Your task to perform on an android device: add a contact Image 0: 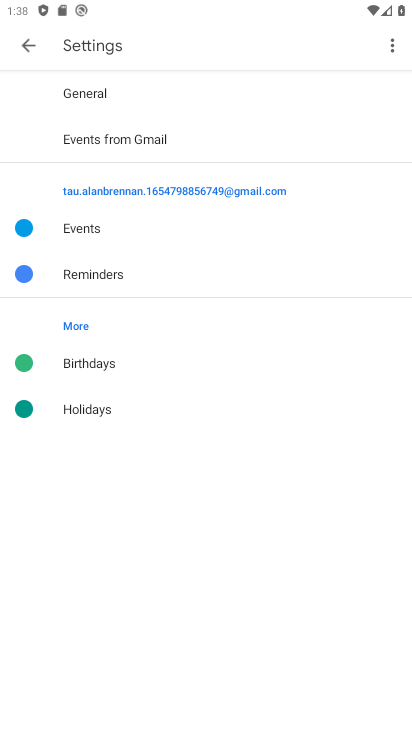
Step 0: press back button
Your task to perform on an android device: add a contact Image 1: 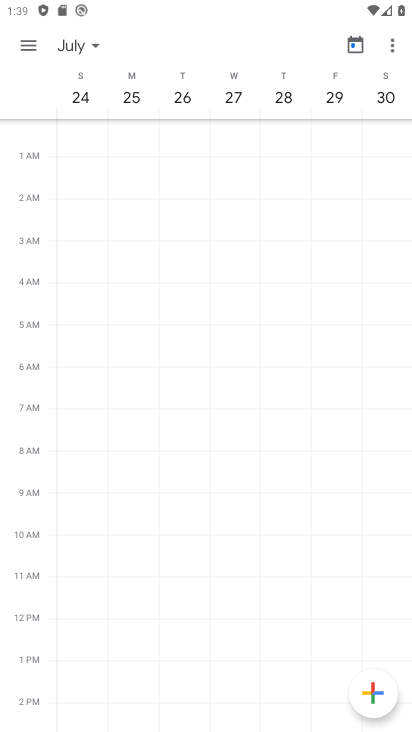
Step 1: press home button
Your task to perform on an android device: add a contact Image 2: 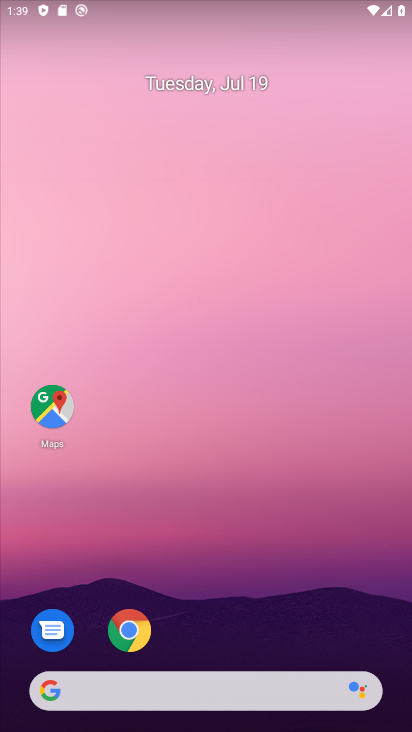
Step 2: drag from (234, 650) to (272, 39)
Your task to perform on an android device: add a contact Image 3: 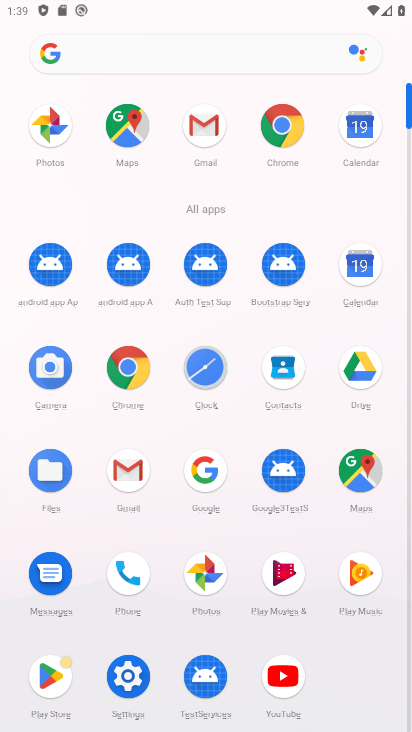
Step 3: click (281, 361)
Your task to perform on an android device: add a contact Image 4: 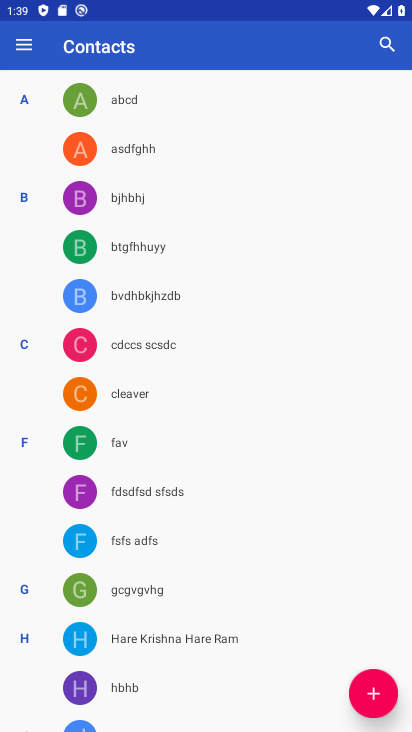
Step 4: click (373, 691)
Your task to perform on an android device: add a contact Image 5: 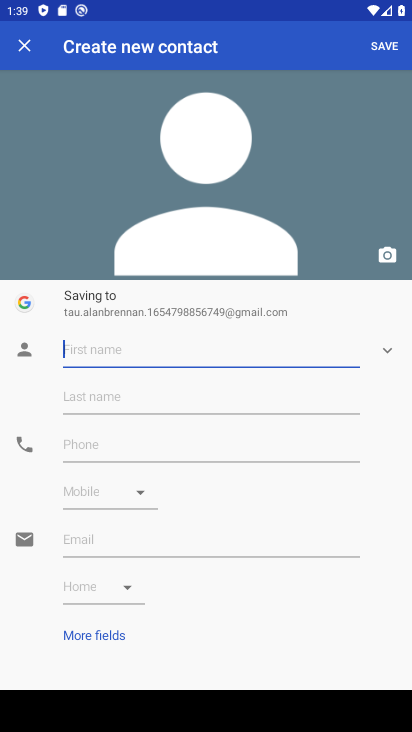
Step 5: type "aprnkt"
Your task to perform on an android device: add a contact Image 6: 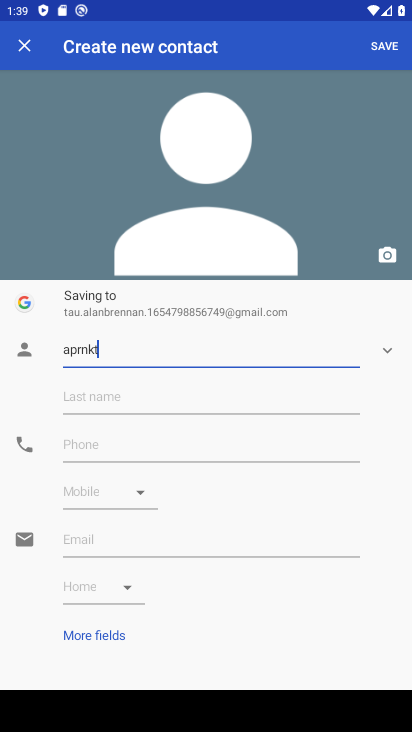
Step 6: click (383, 40)
Your task to perform on an android device: add a contact Image 7: 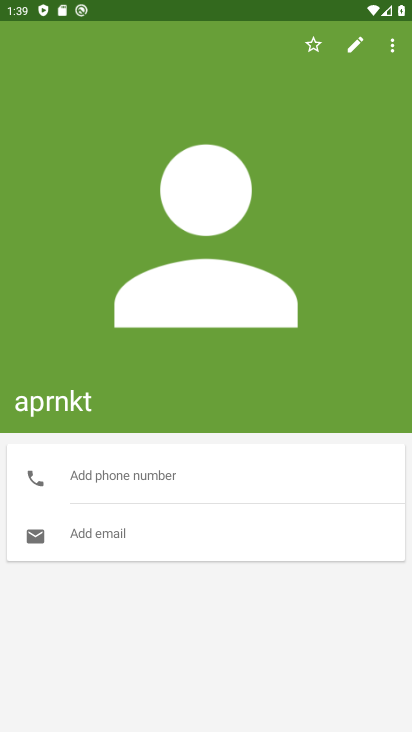
Step 7: task complete